Your task to perform on an android device: Go to notification settings Image 0: 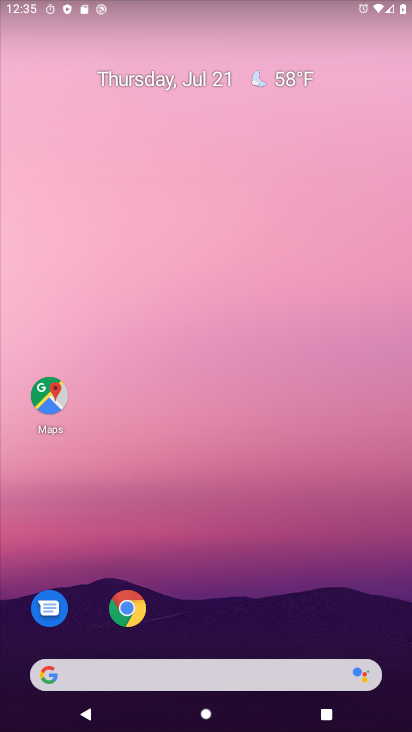
Step 0: drag from (197, 629) to (237, 115)
Your task to perform on an android device: Go to notification settings Image 1: 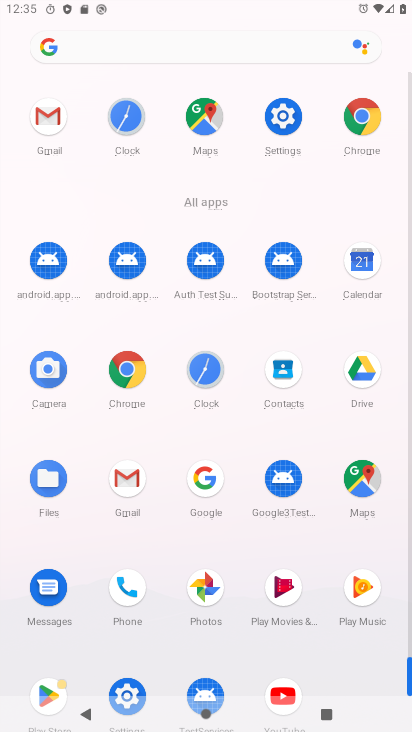
Step 1: click (282, 111)
Your task to perform on an android device: Go to notification settings Image 2: 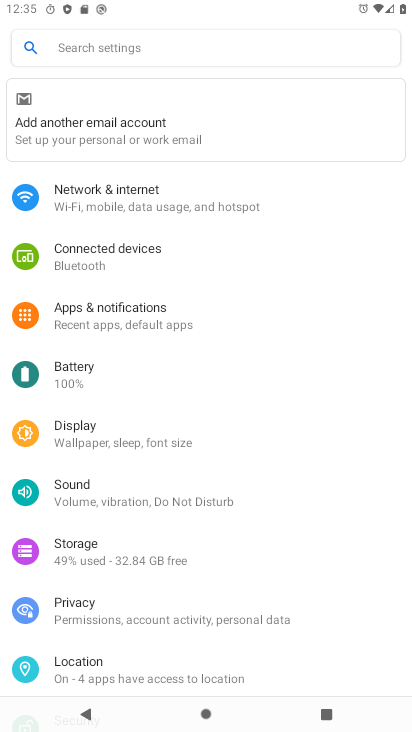
Step 2: click (110, 313)
Your task to perform on an android device: Go to notification settings Image 3: 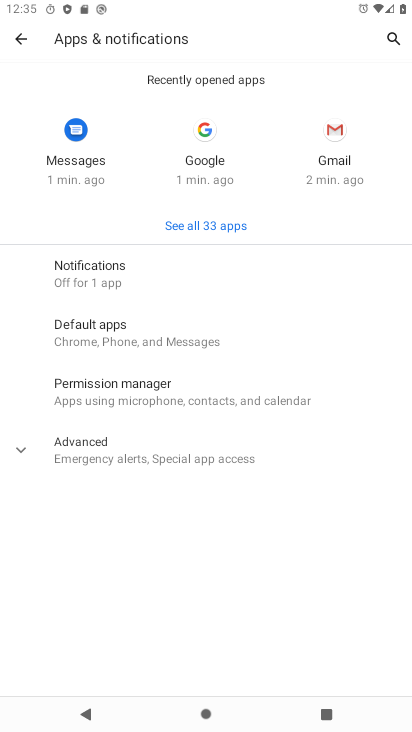
Step 3: click (141, 268)
Your task to perform on an android device: Go to notification settings Image 4: 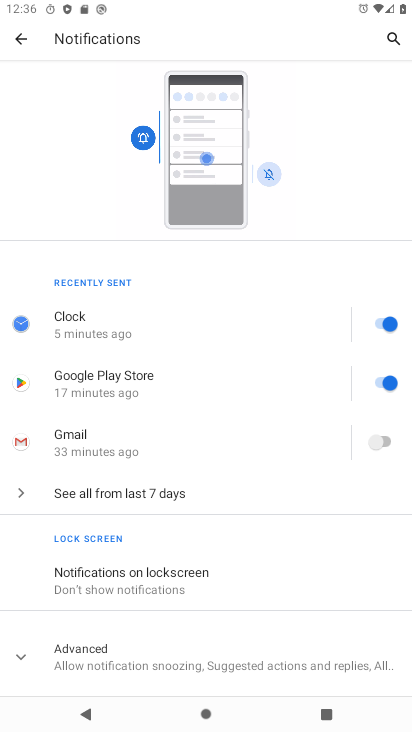
Step 4: click (17, 654)
Your task to perform on an android device: Go to notification settings Image 5: 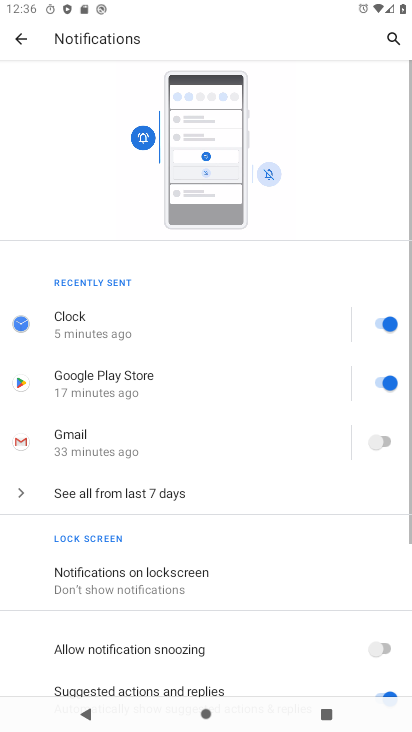
Step 5: task complete